Your task to perform on an android device: see sites visited before in the chrome app Image 0: 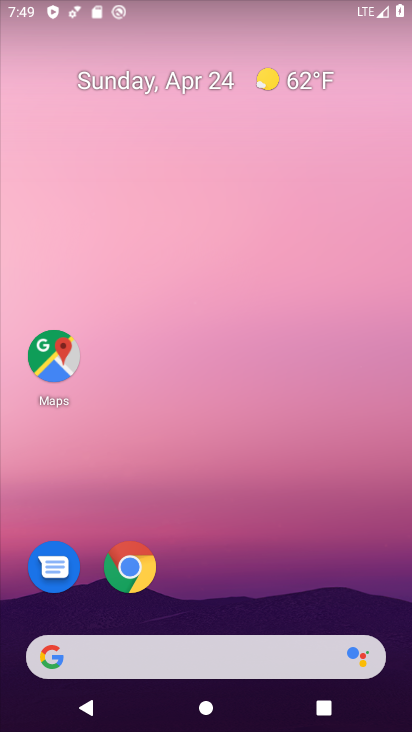
Step 0: click (131, 569)
Your task to perform on an android device: see sites visited before in the chrome app Image 1: 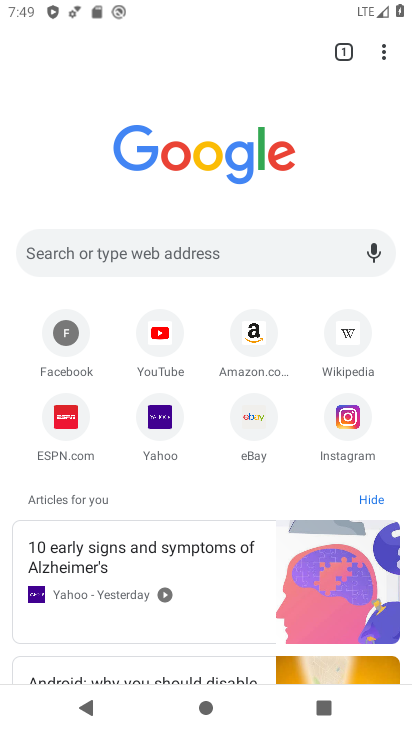
Step 1: click (386, 51)
Your task to perform on an android device: see sites visited before in the chrome app Image 2: 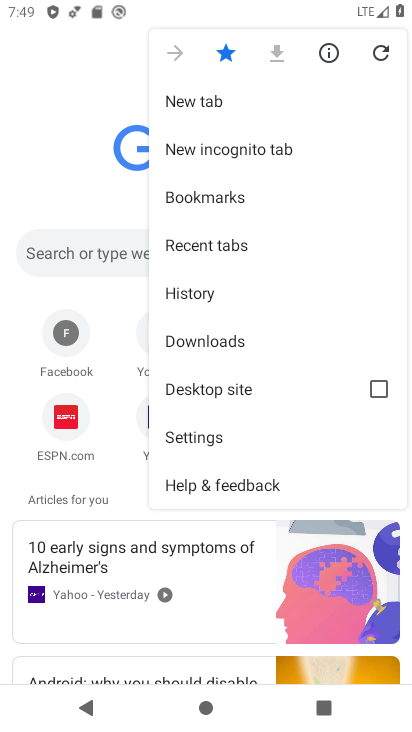
Step 2: click (207, 294)
Your task to perform on an android device: see sites visited before in the chrome app Image 3: 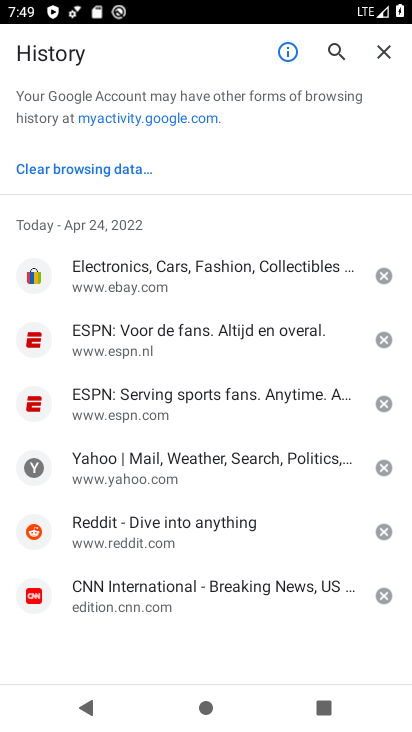
Step 3: task complete